Your task to perform on an android device: turn on the 24-hour format for clock Image 0: 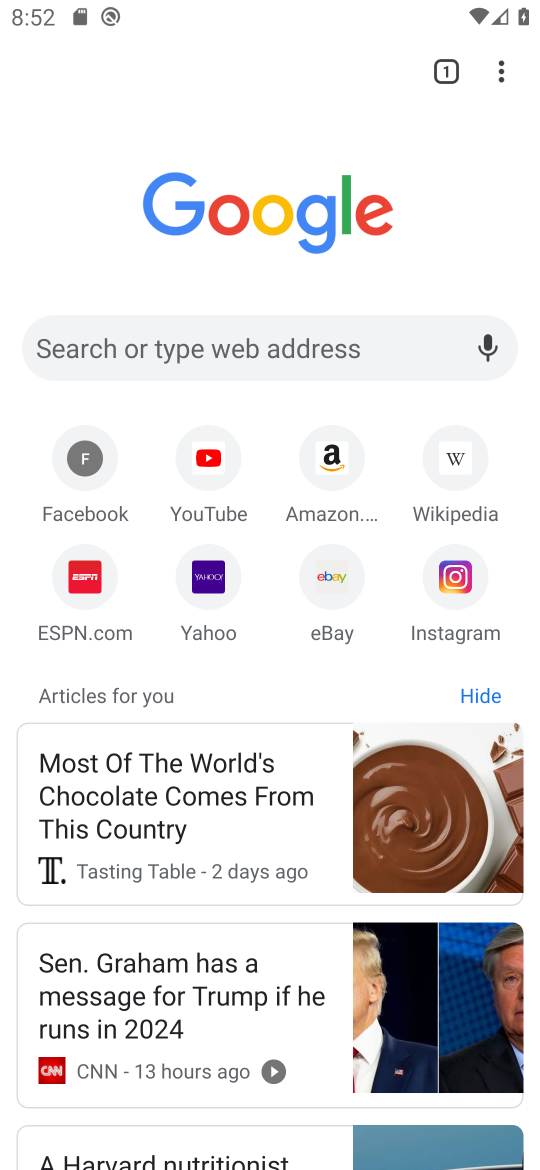
Step 0: press home button
Your task to perform on an android device: turn on the 24-hour format for clock Image 1: 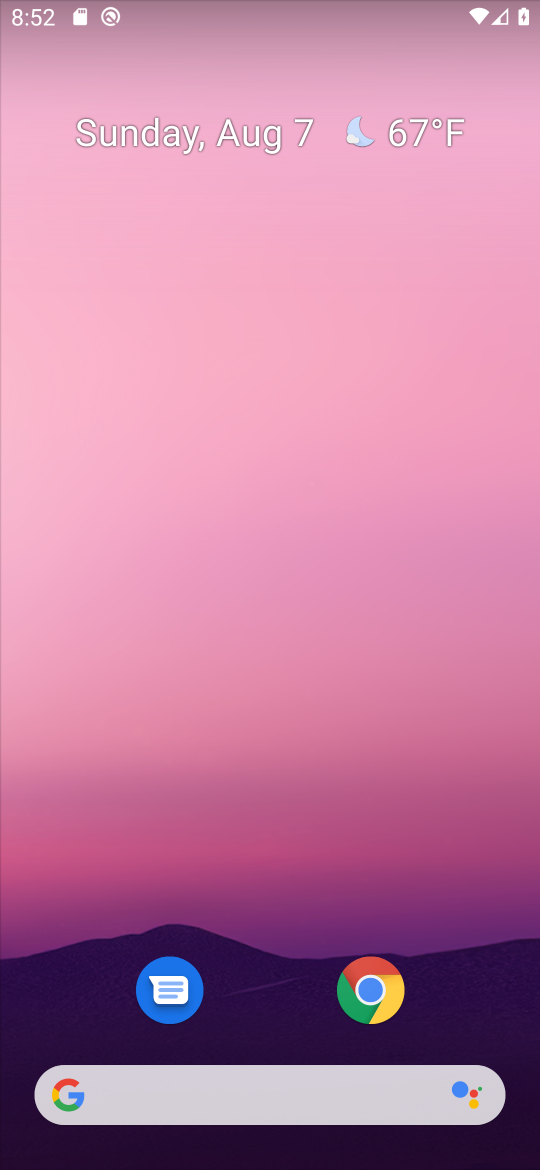
Step 1: drag from (283, 920) to (187, 2)
Your task to perform on an android device: turn on the 24-hour format for clock Image 2: 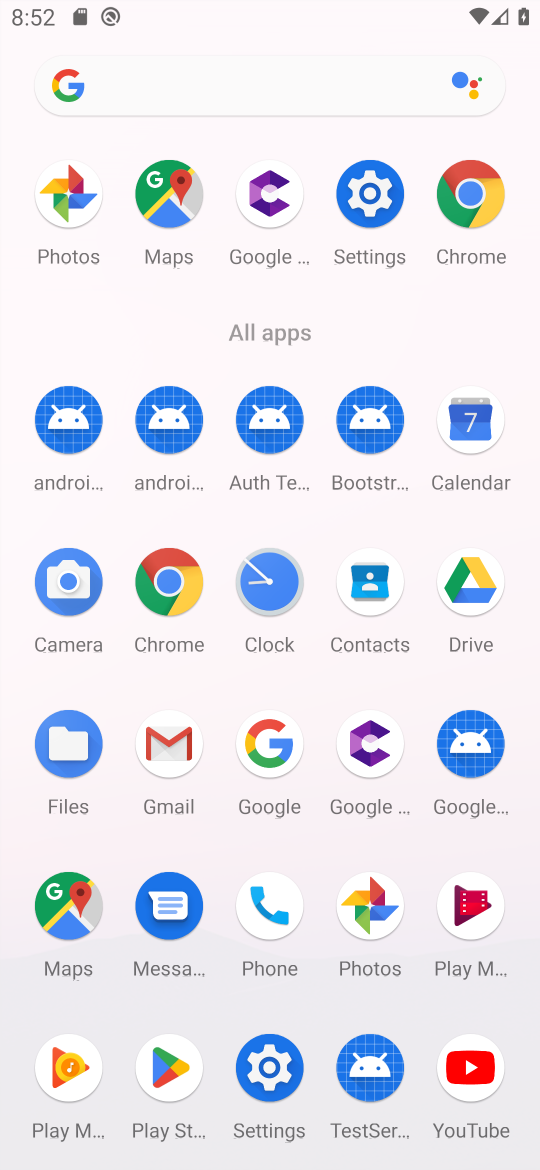
Step 2: click (268, 574)
Your task to perform on an android device: turn on the 24-hour format for clock Image 3: 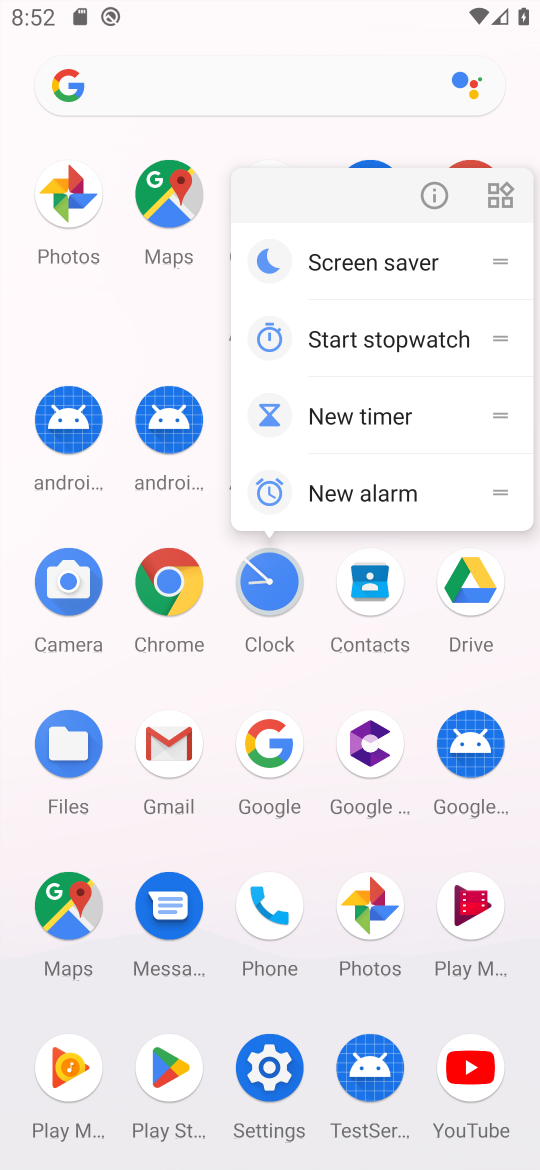
Step 3: click (268, 576)
Your task to perform on an android device: turn on the 24-hour format for clock Image 4: 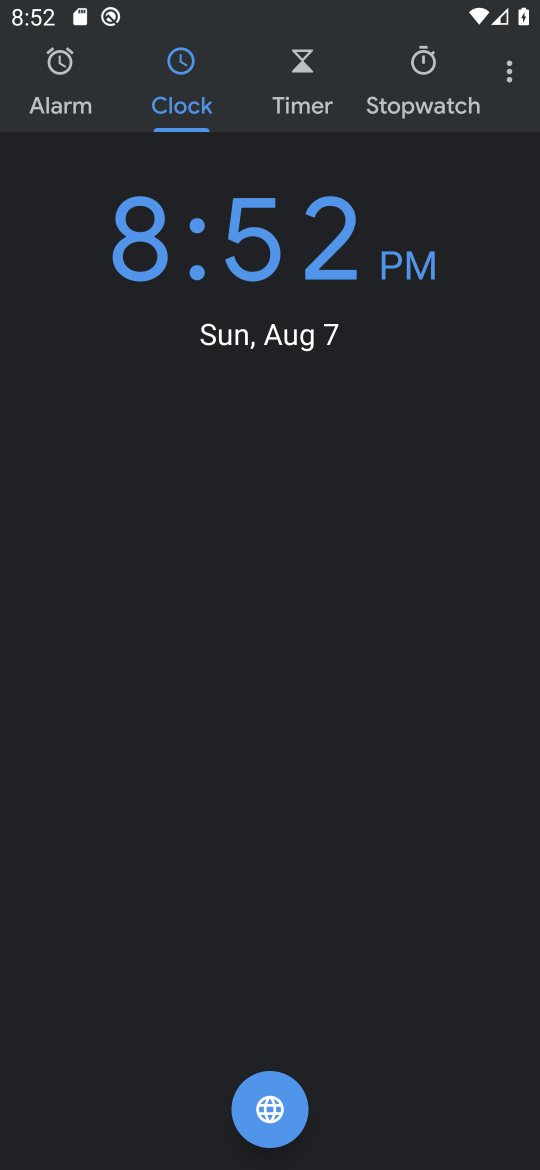
Step 4: click (517, 83)
Your task to perform on an android device: turn on the 24-hour format for clock Image 5: 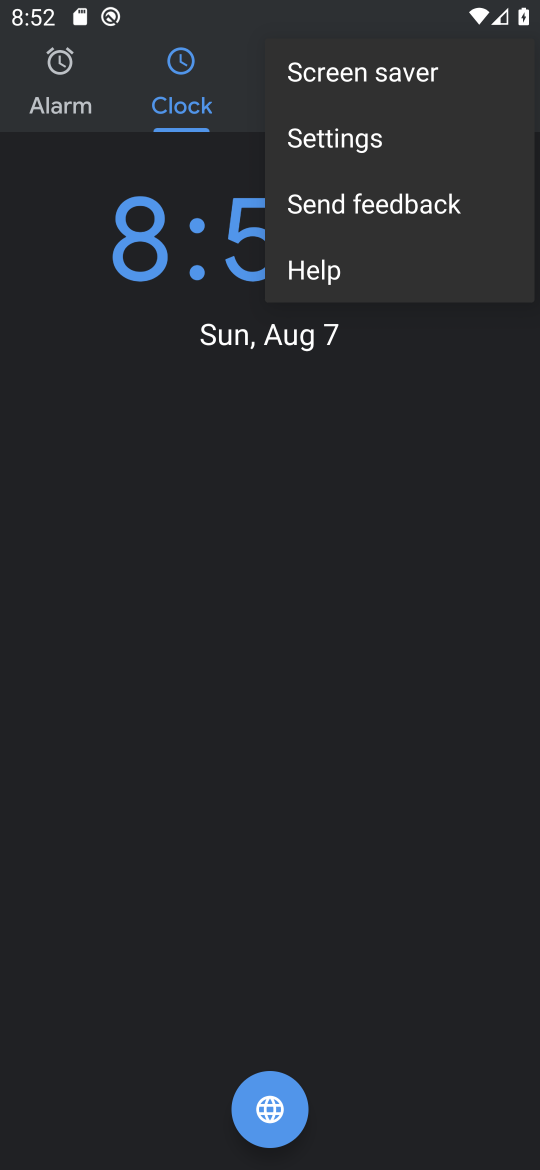
Step 5: click (396, 138)
Your task to perform on an android device: turn on the 24-hour format for clock Image 6: 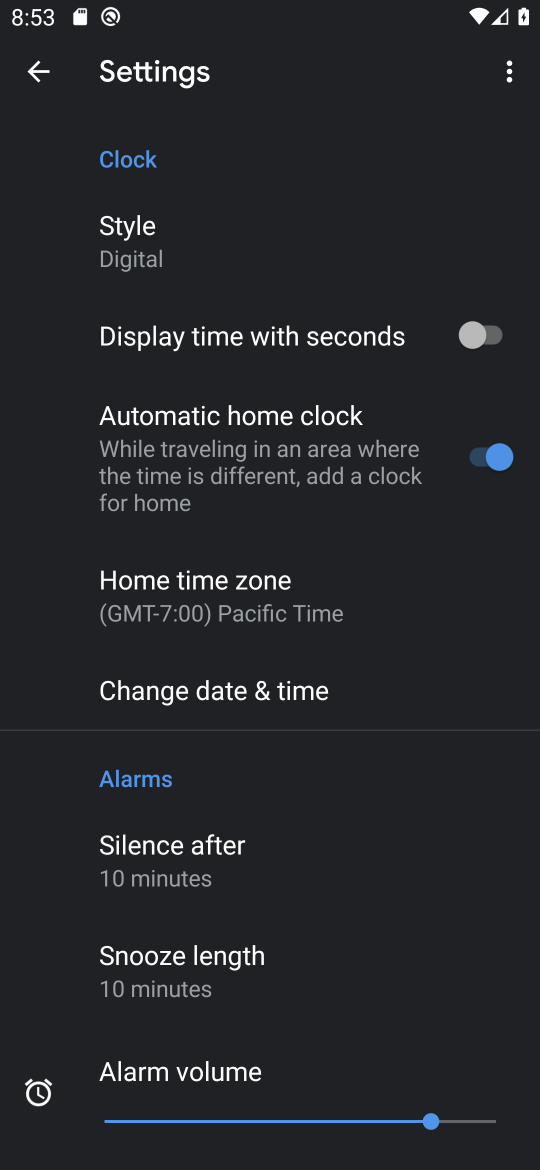
Step 6: click (359, 695)
Your task to perform on an android device: turn on the 24-hour format for clock Image 7: 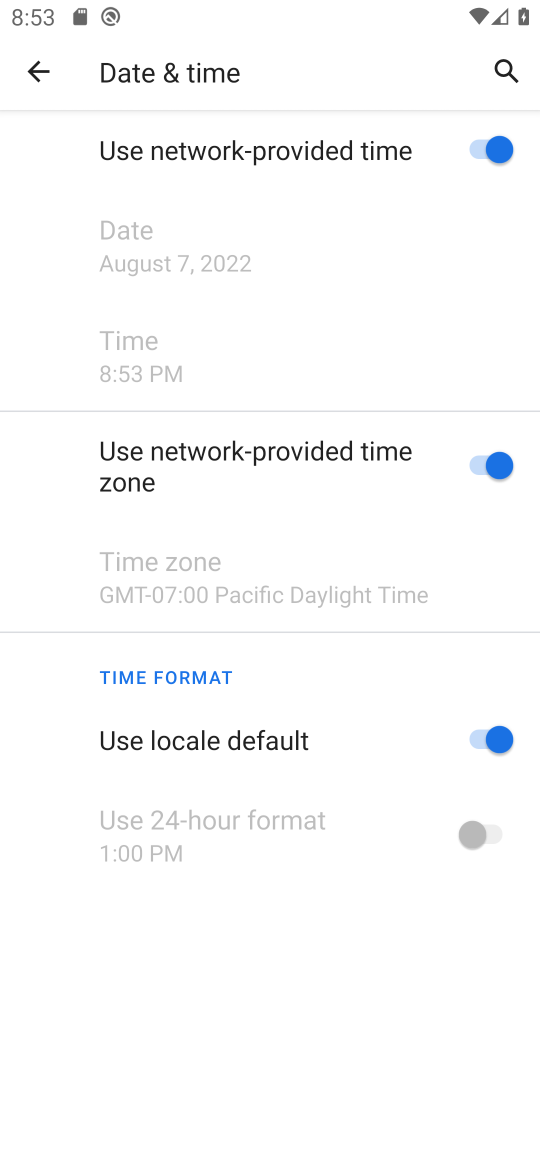
Step 7: click (475, 727)
Your task to perform on an android device: turn on the 24-hour format for clock Image 8: 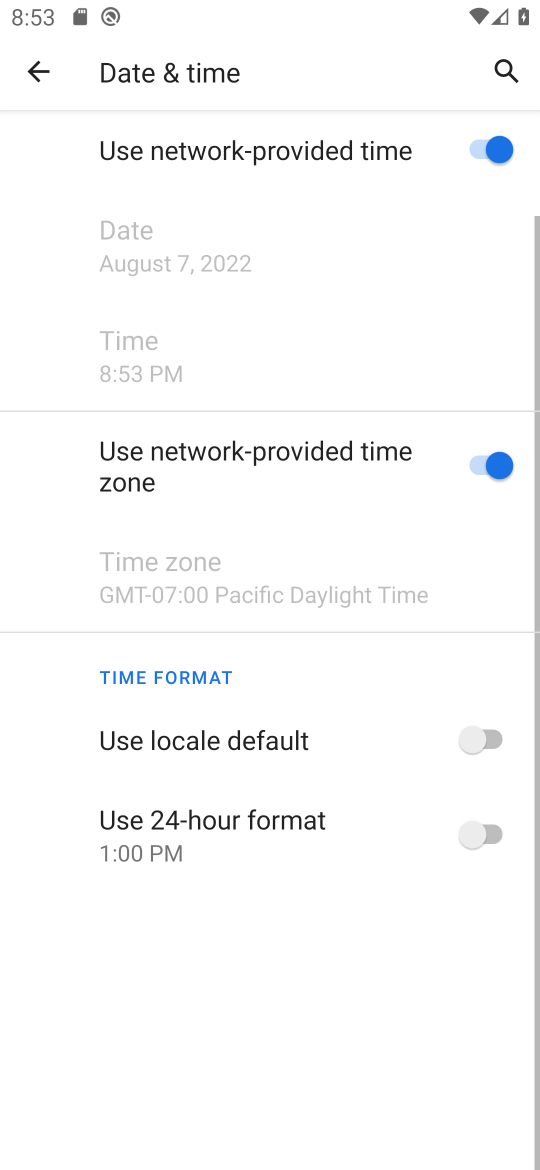
Step 8: click (492, 828)
Your task to perform on an android device: turn on the 24-hour format for clock Image 9: 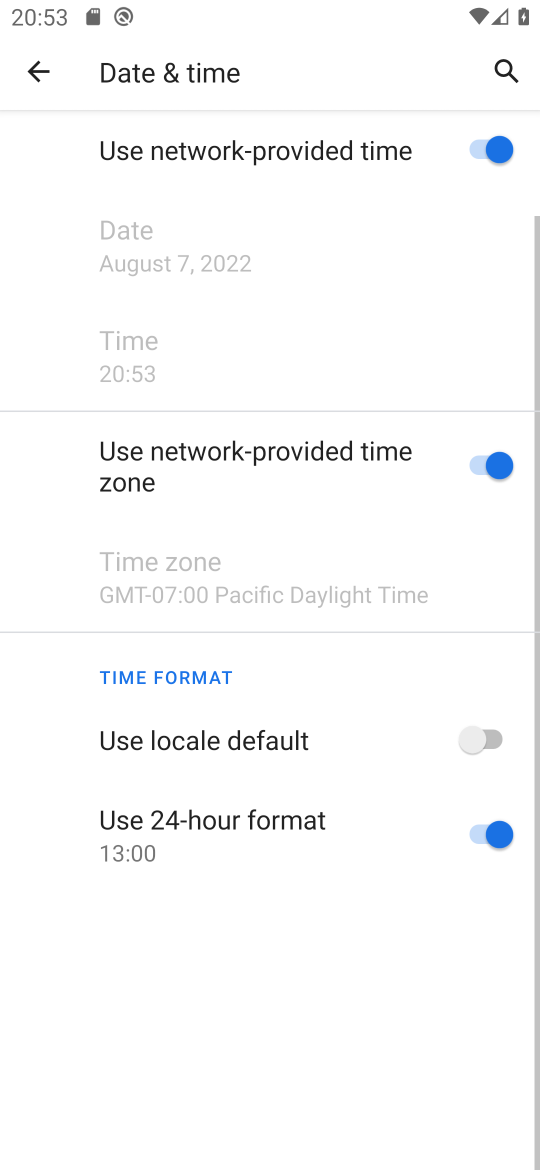
Step 9: task complete